Your task to perform on an android device: visit the assistant section in the google photos Image 0: 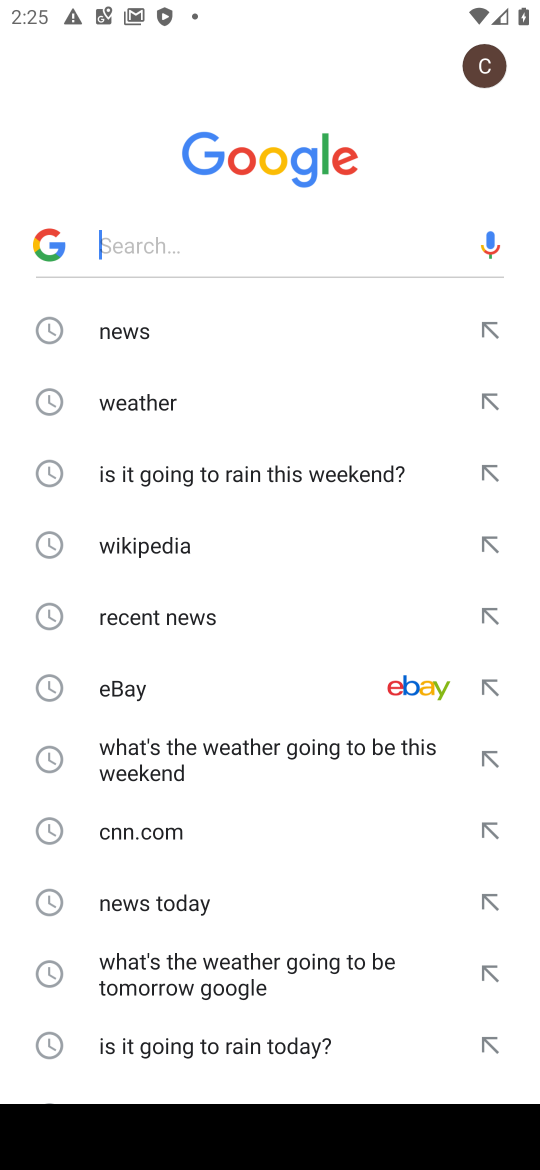
Step 0: press home button
Your task to perform on an android device: visit the assistant section in the google photos Image 1: 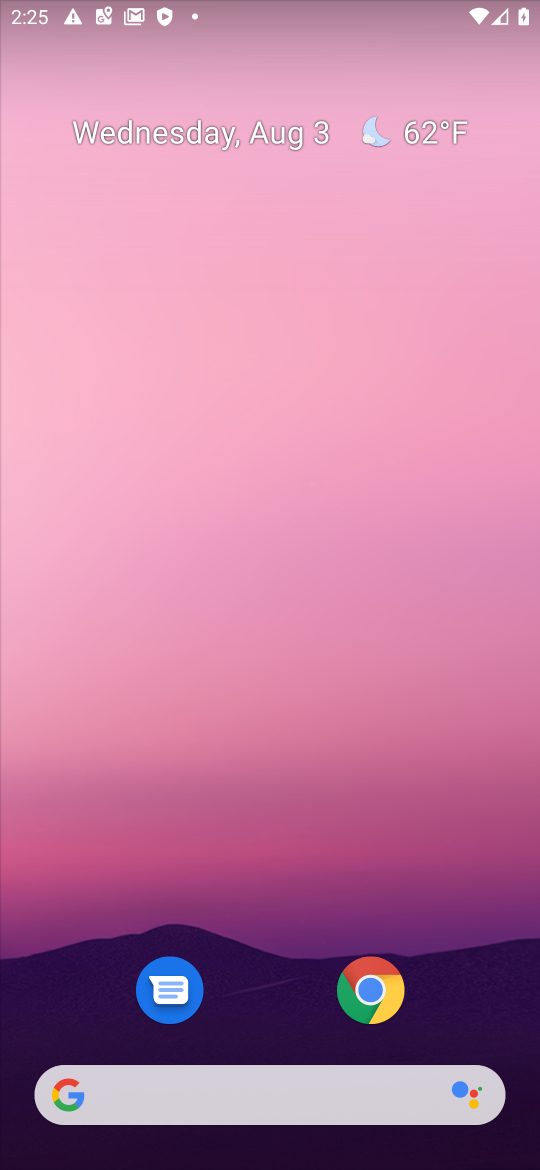
Step 1: drag from (319, 1071) to (267, 59)
Your task to perform on an android device: visit the assistant section in the google photos Image 2: 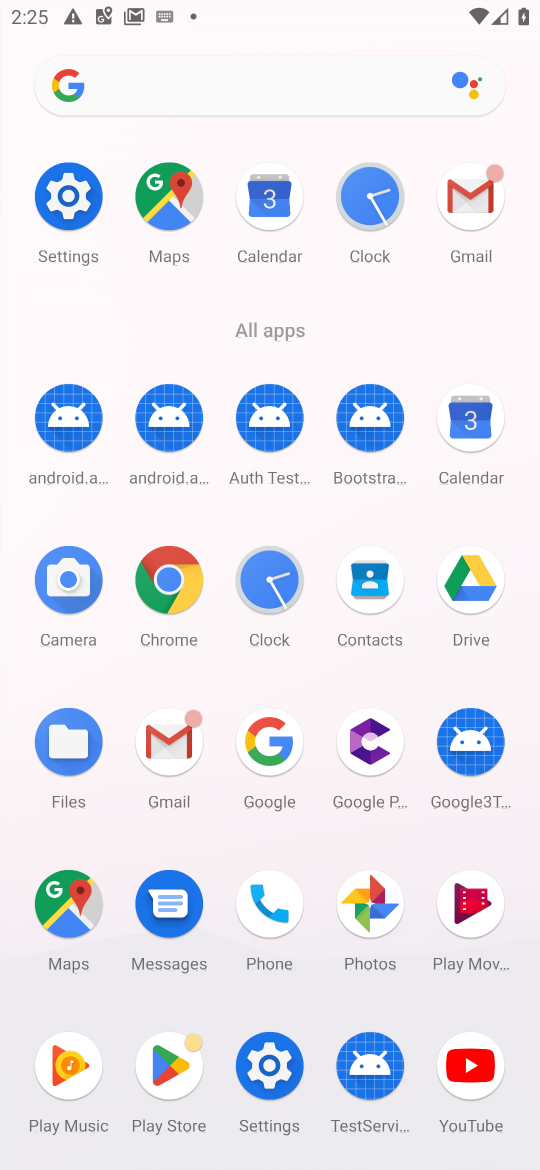
Step 2: click (357, 909)
Your task to perform on an android device: visit the assistant section in the google photos Image 3: 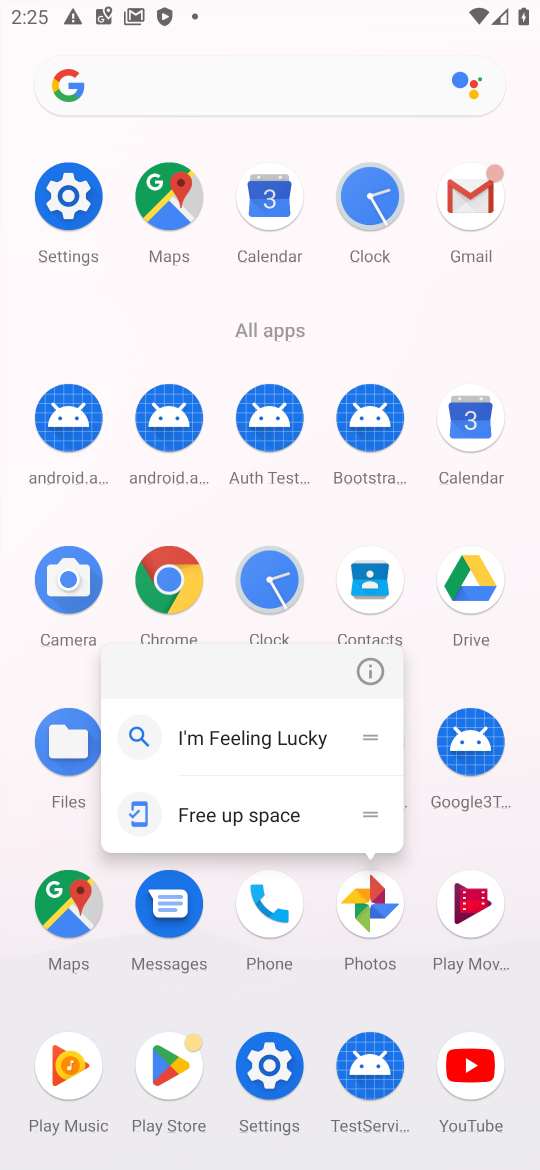
Step 3: click (367, 915)
Your task to perform on an android device: visit the assistant section in the google photos Image 4: 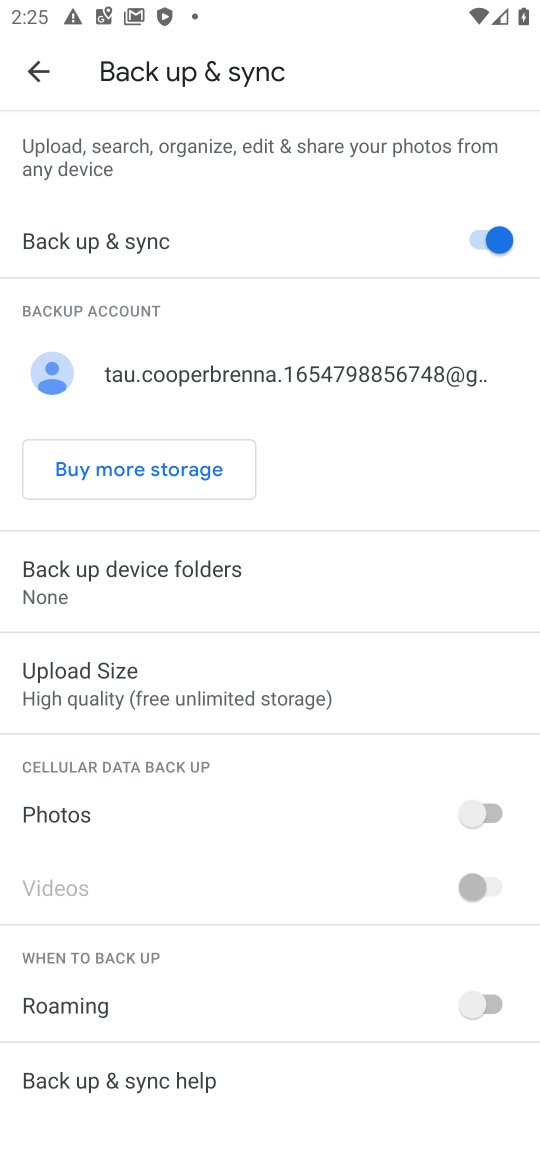
Step 4: click (34, 77)
Your task to perform on an android device: visit the assistant section in the google photos Image 5: 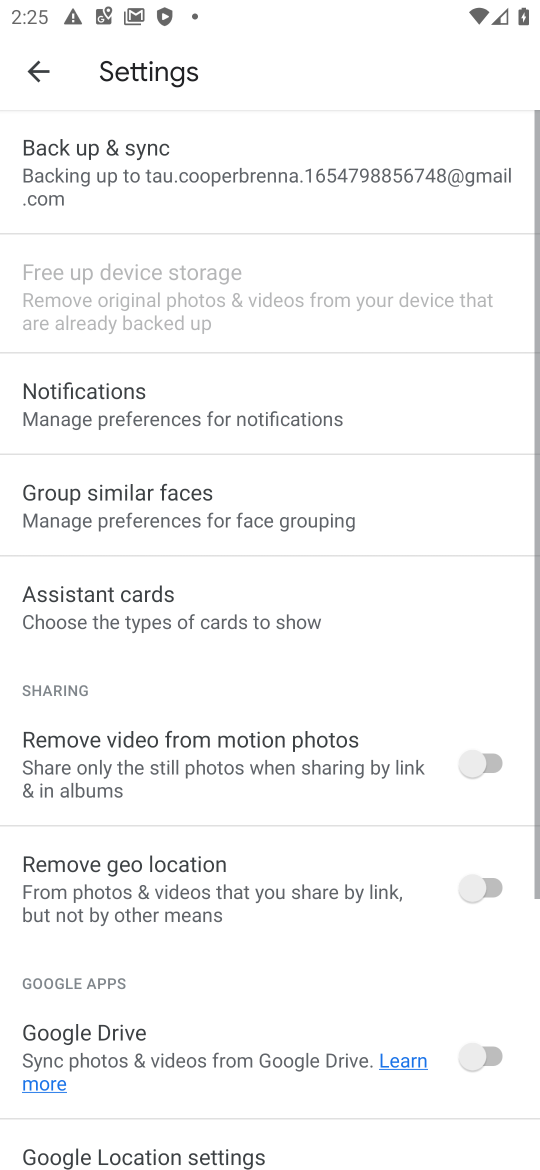
Step 5: click (22, 71)
Your task to perform on an android device: visit the assistant section in the google photos Image 6: 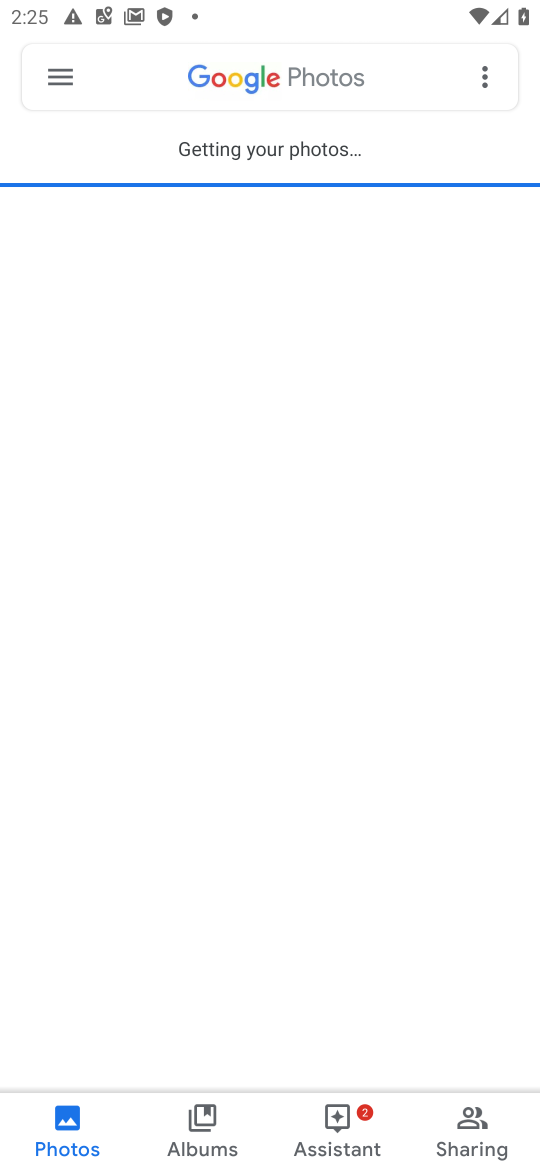
Step 6: click (332, 1127)
Your task to perform on an android device: visit the assistant section in the google photos Image 7: 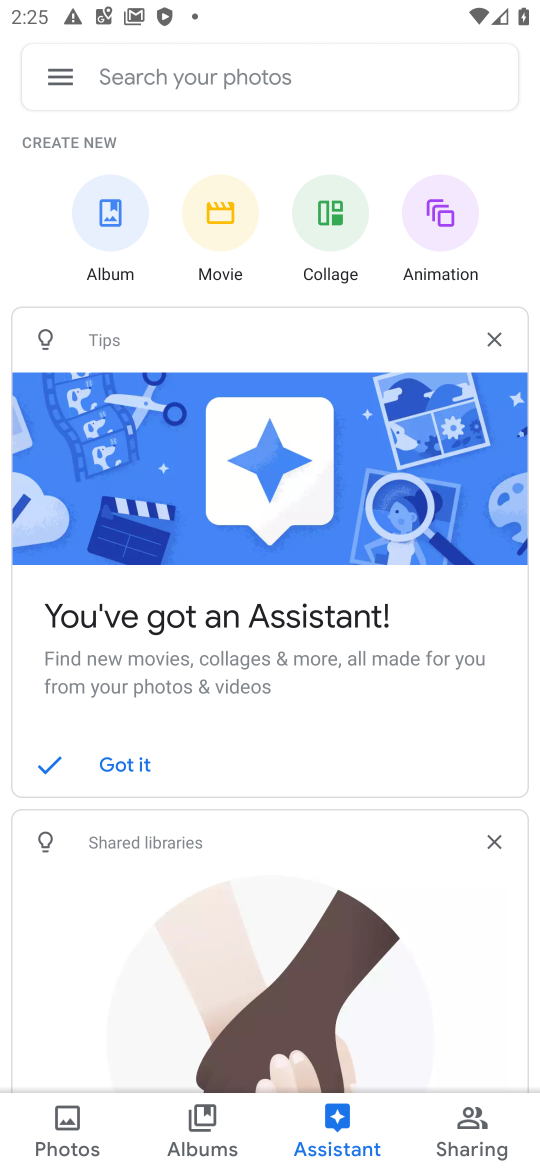
Step 7: task complete